Your task to perform on an android device: install app "Google Maps" Image 0: 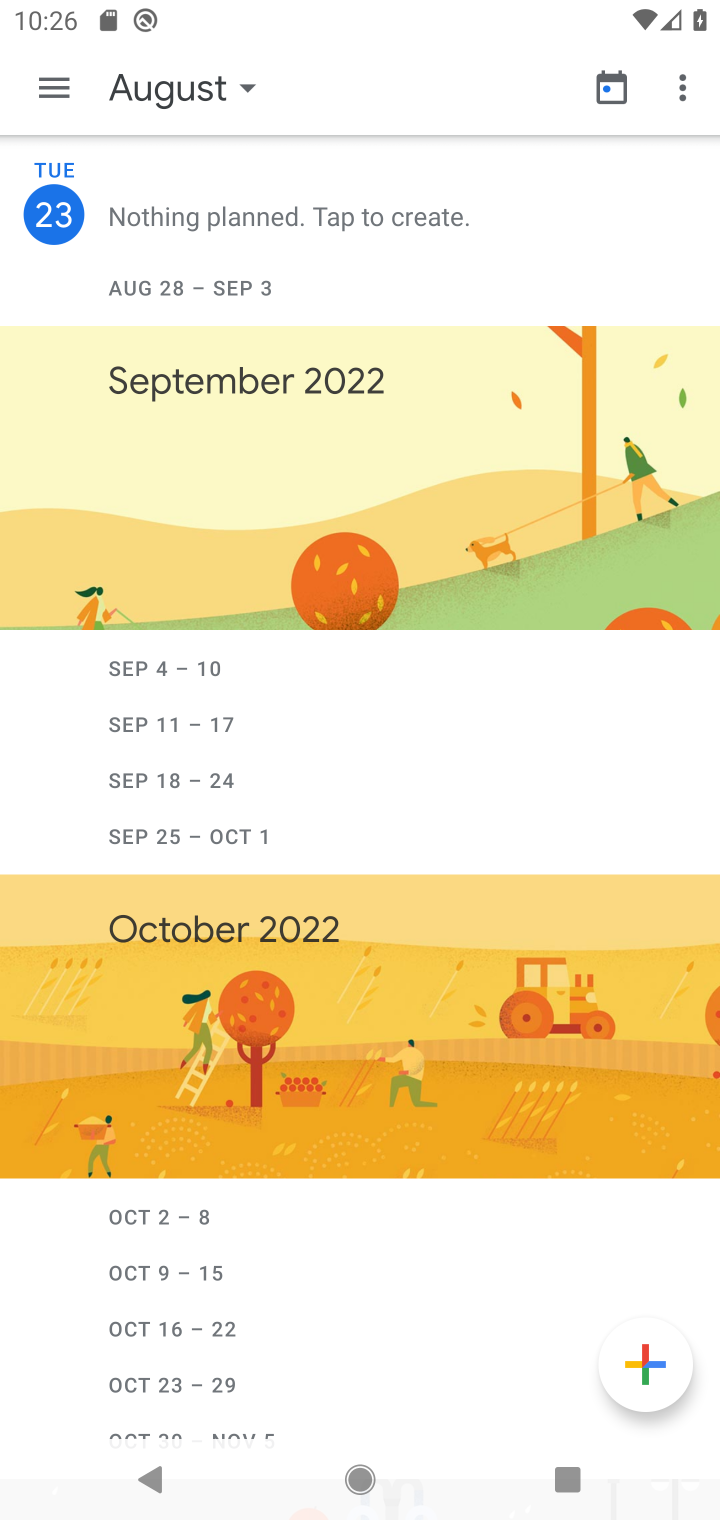
Step 0: press home button
Your task to perform on an android device: install app "Google Maps" Image 1: 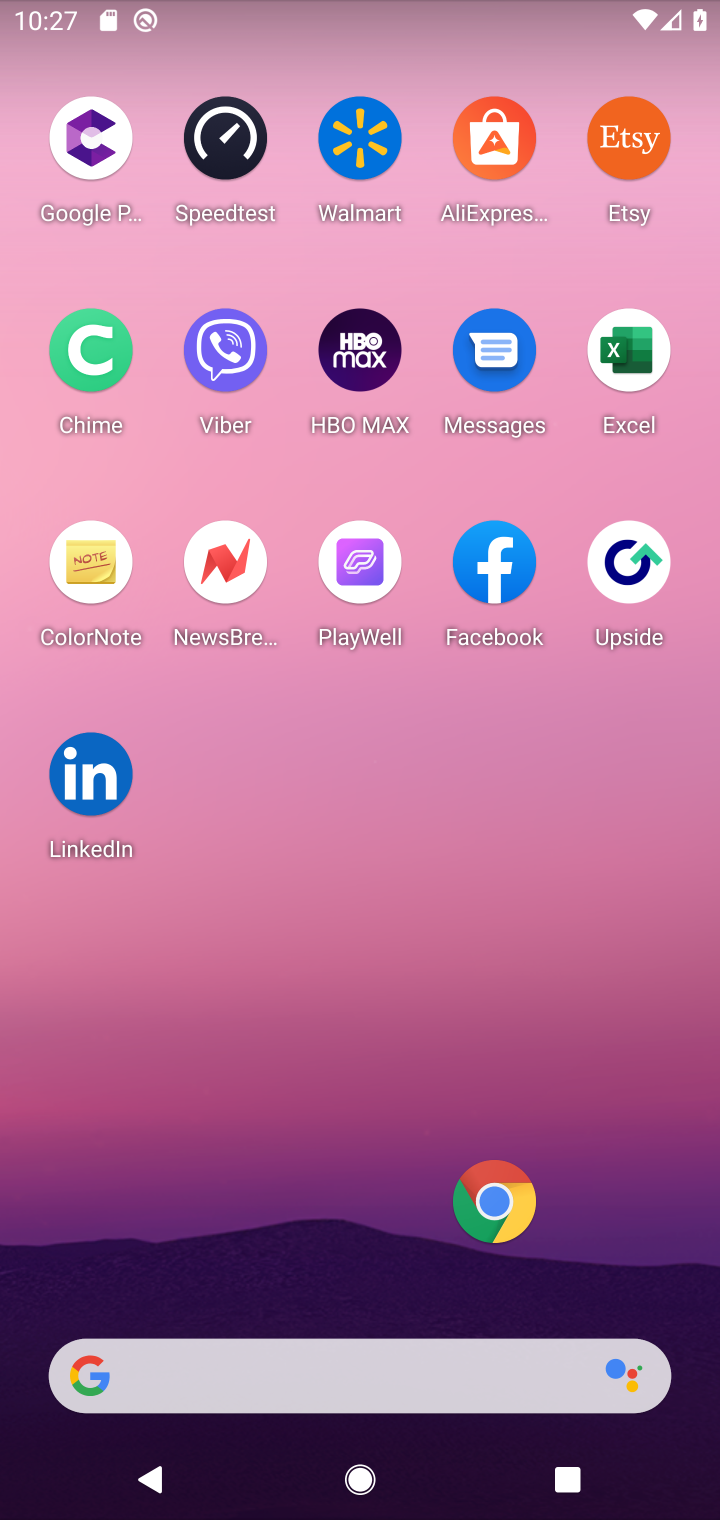
Step 1: drag from (297, 1298) to (315, 485)
Your task to perform on an android device: install app "Google Maps" Image 2: 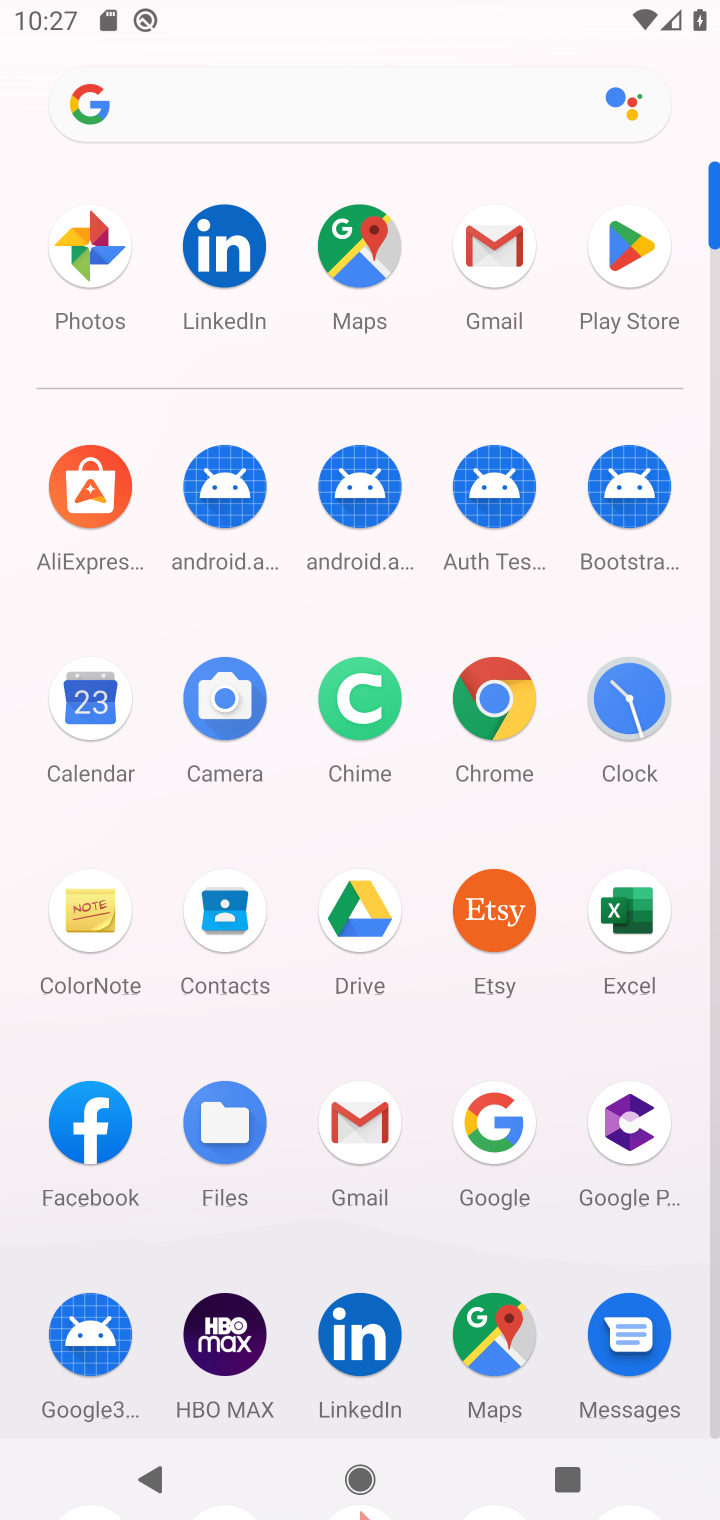
Step 2: click (613, 252)
Your task to perform on an android device: install app "Google Maps" Image 3: 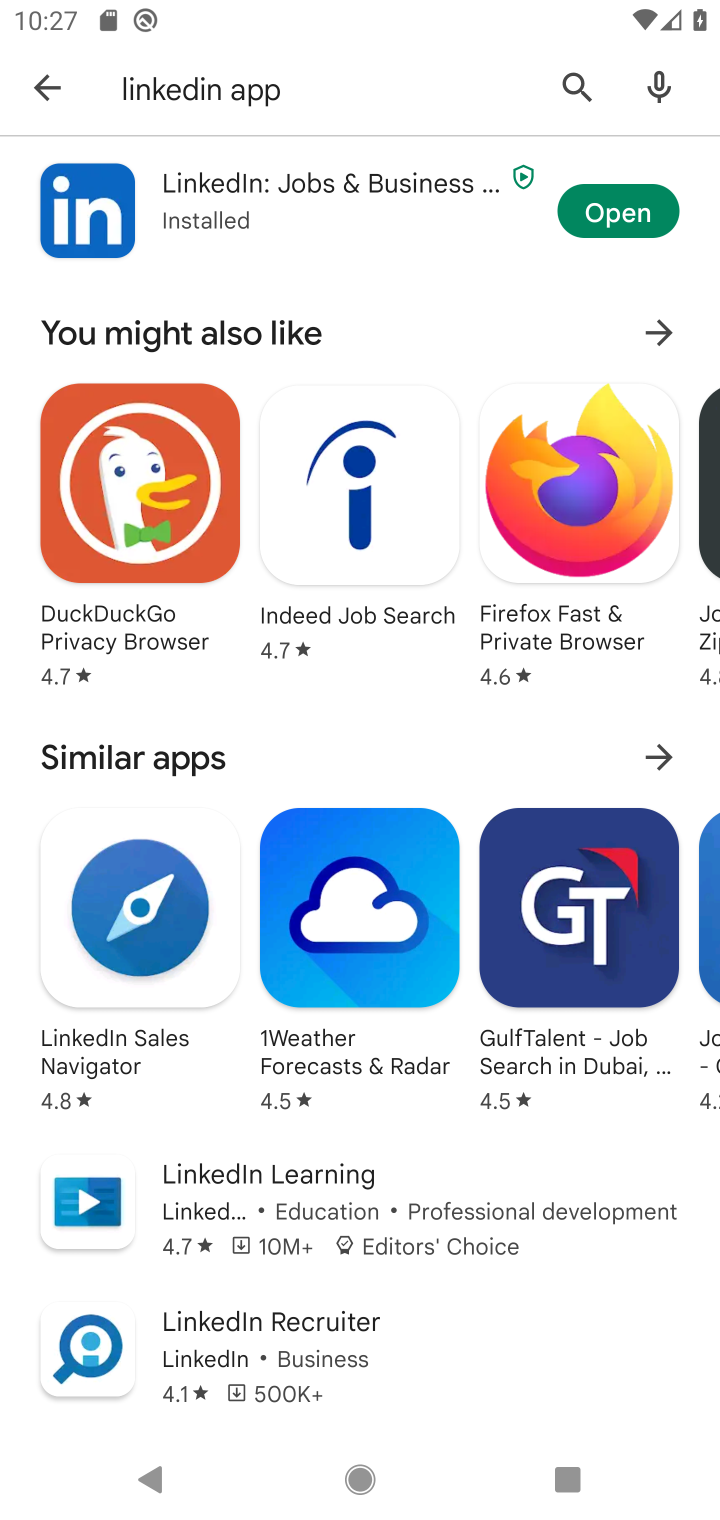
Step 3: click (41, 92)
Your task to perform on an android device: install app "Google Maps" Image 4: 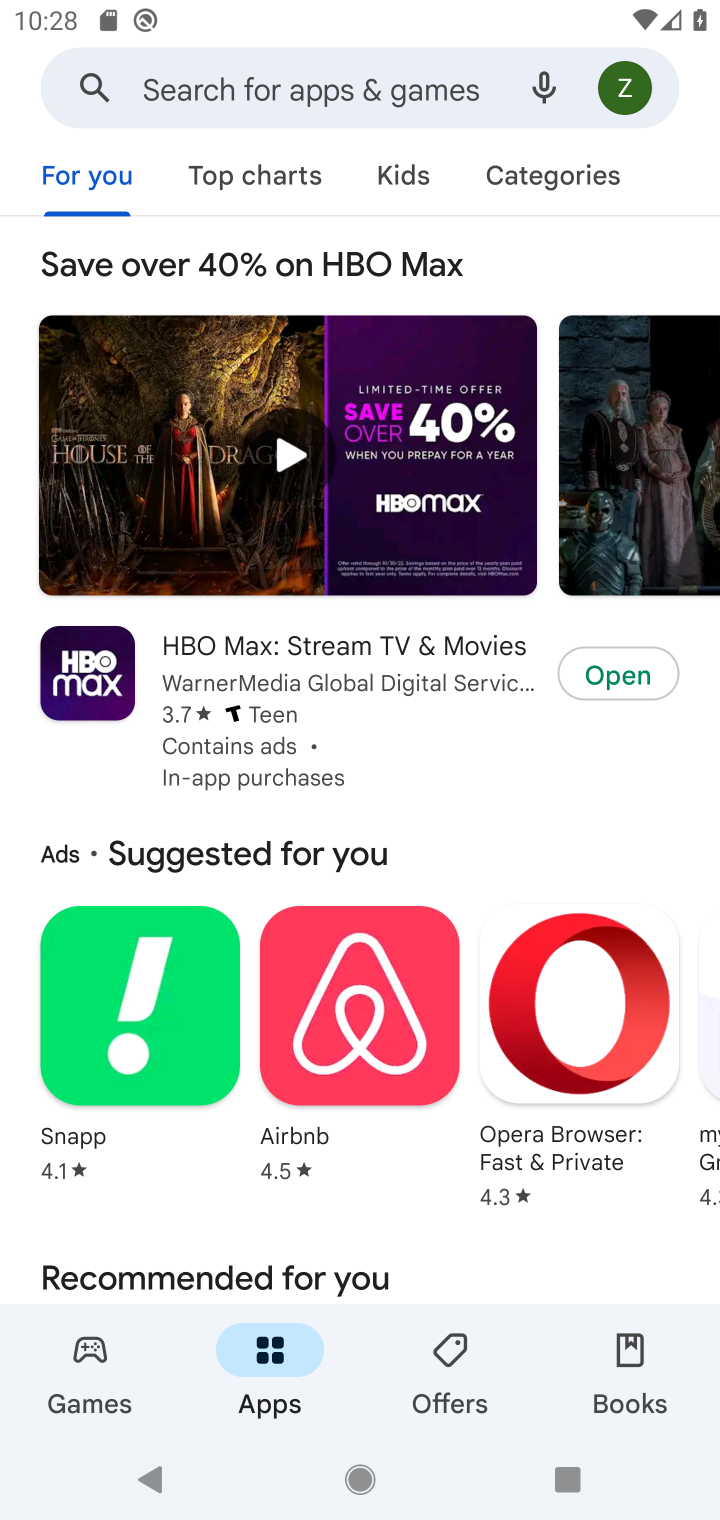
Step 4: click (388, 70)
Your task to perform on an android device: install app "Google Maps" Image 5: 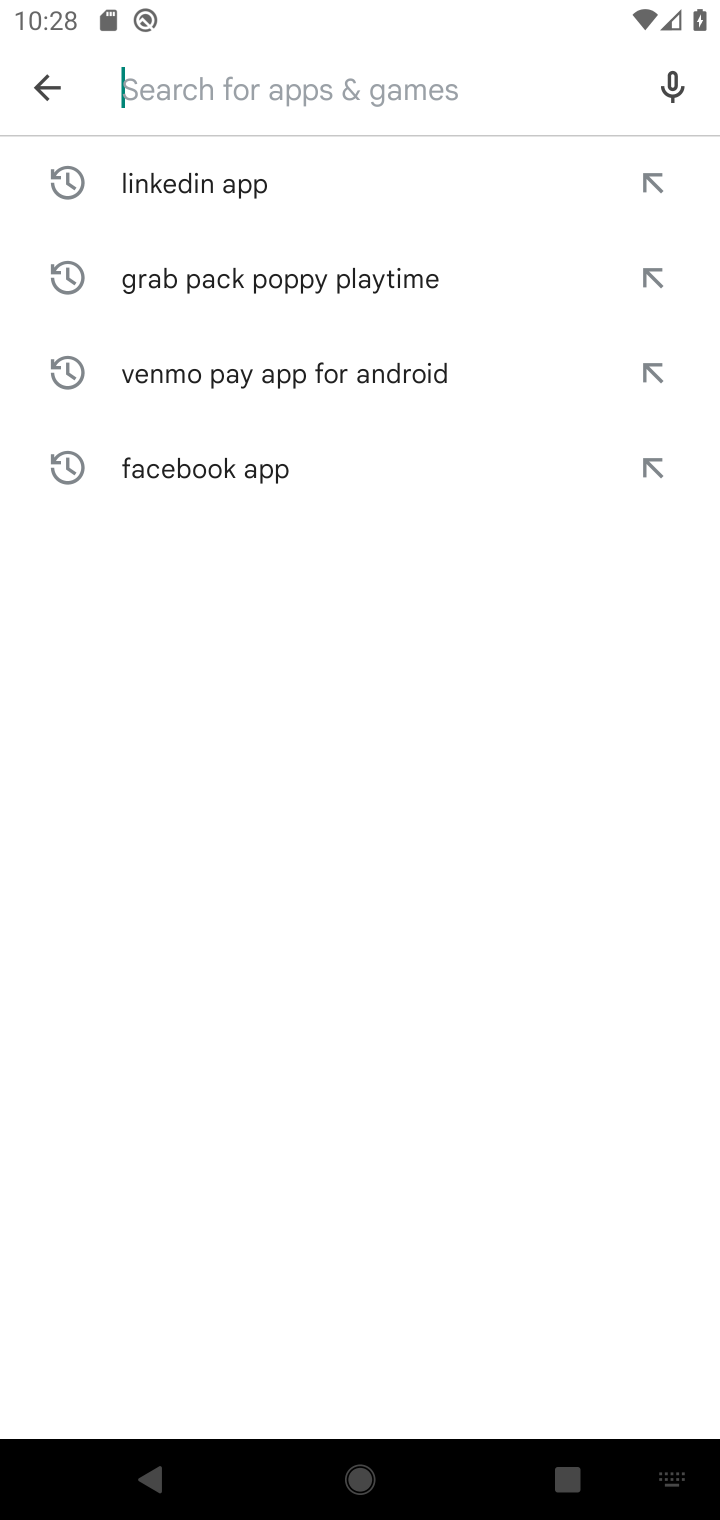
Step 5: type "Google Maps "
Your task to perform on an android device: install app "Google Maps" Image 6: 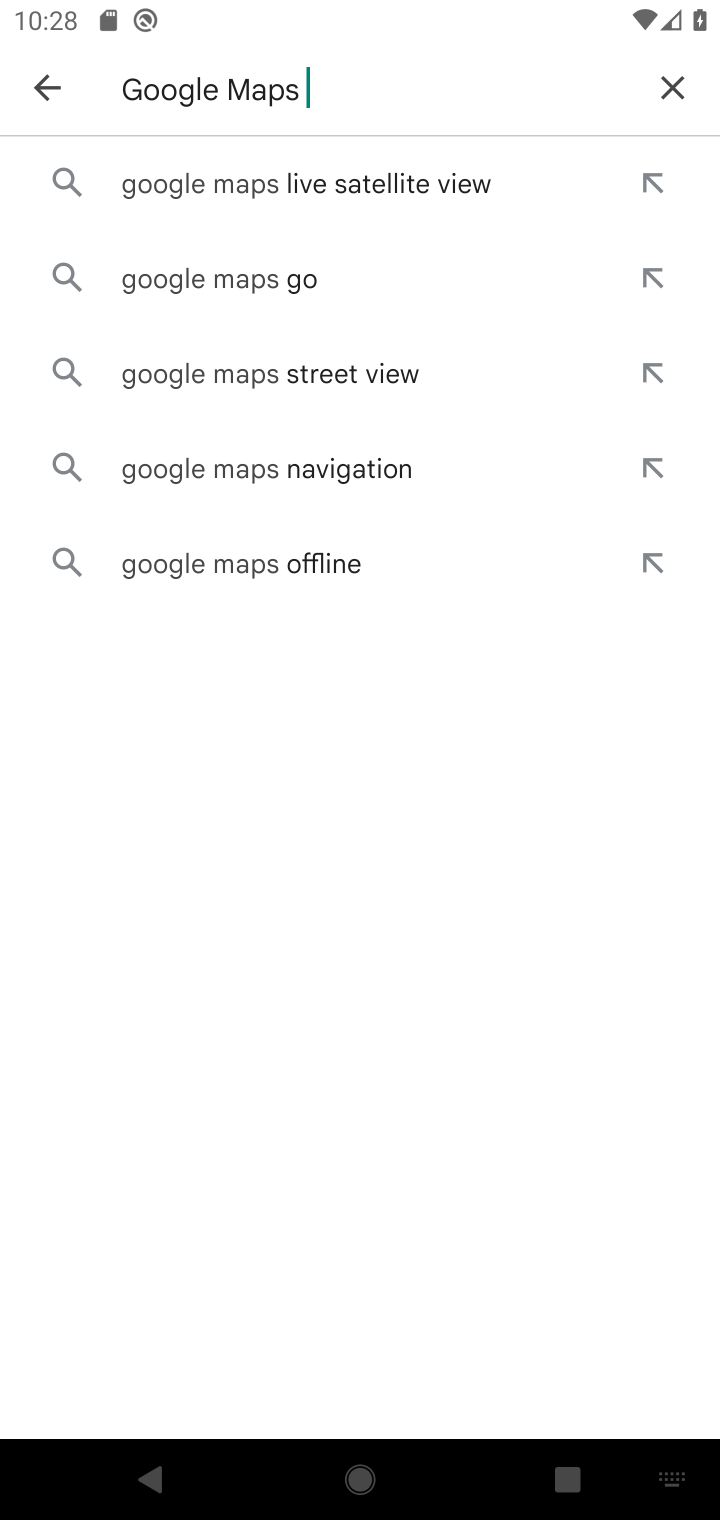
Step 6: click (361, 265)
Your task to perform on an android device: install app "Google Maps" Image 7: 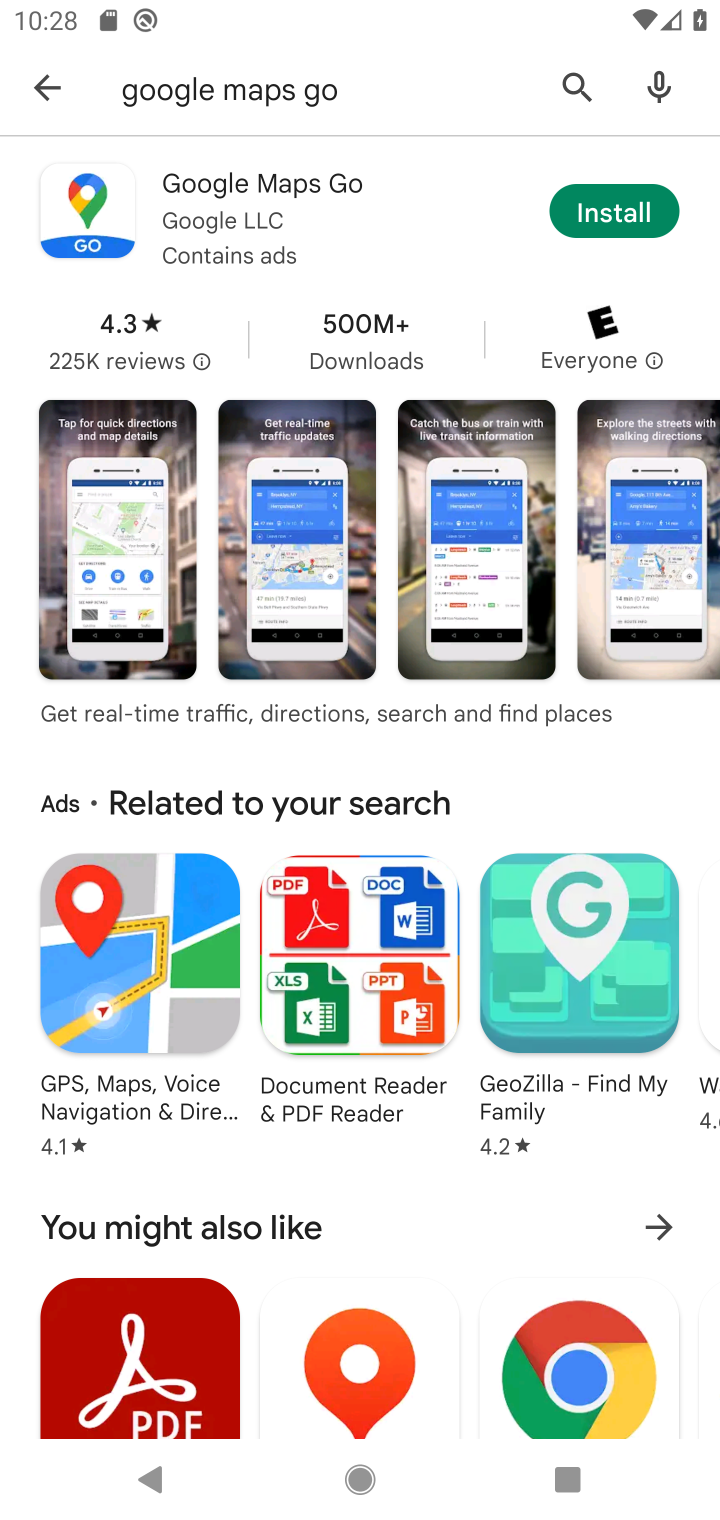
Step 7: click (657, 211)
Your task to perform on an android device: install app "Google Maps" Image 8: 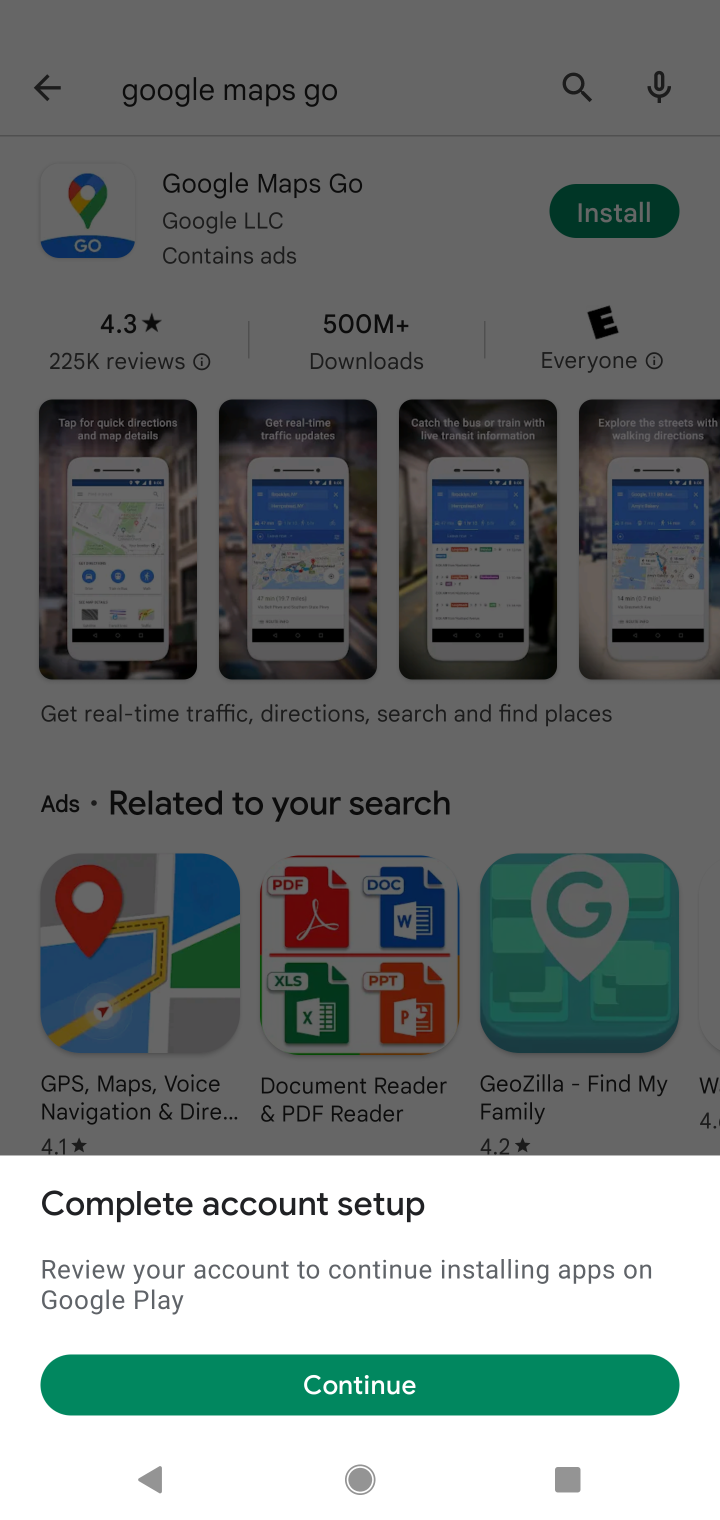
Step 8: task complete